Your task to perform on an android device: open the mobile data screen to see how much data has been used Image 0: 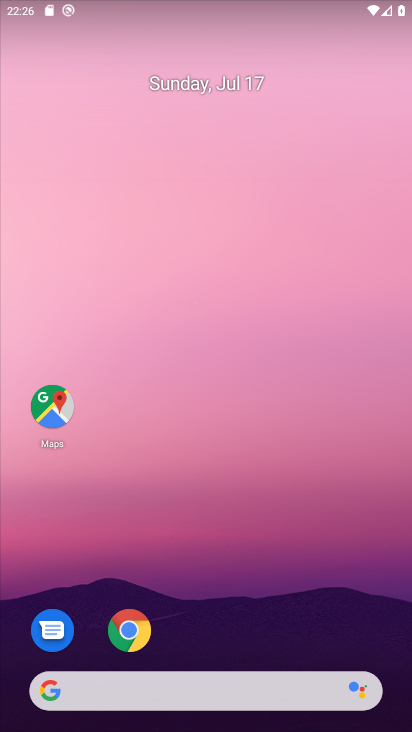
Step 0: drag from (209, 574) to (239, 5)
Your task to perform on an android device: open the mobile data screen to see how much data has been used Image 1: 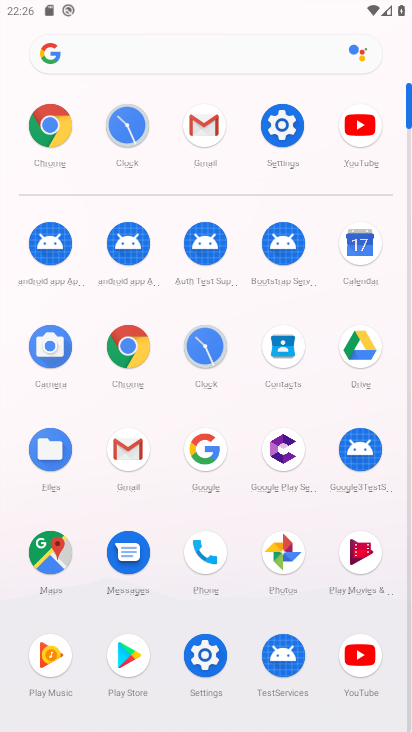
Step 1: click (210, 674)
Your task to perform on an android device: open the mobile data screen to see how much data has been used Image 2: 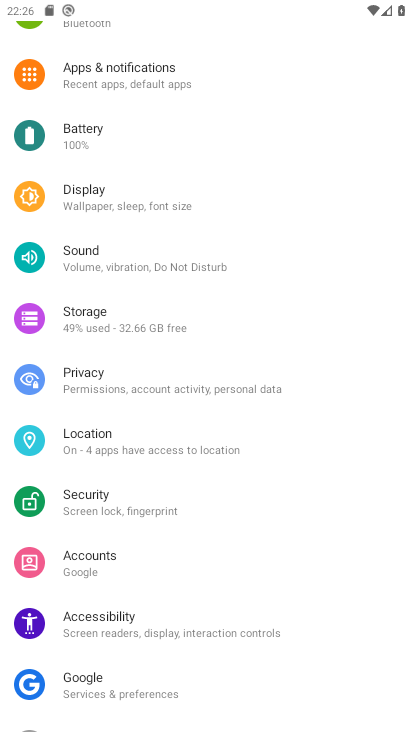
Step 2: drag from (153, 169) to (169, 432)
Your task to perform on an android device: open the mobile data screen to see how much data has been used Image 3: 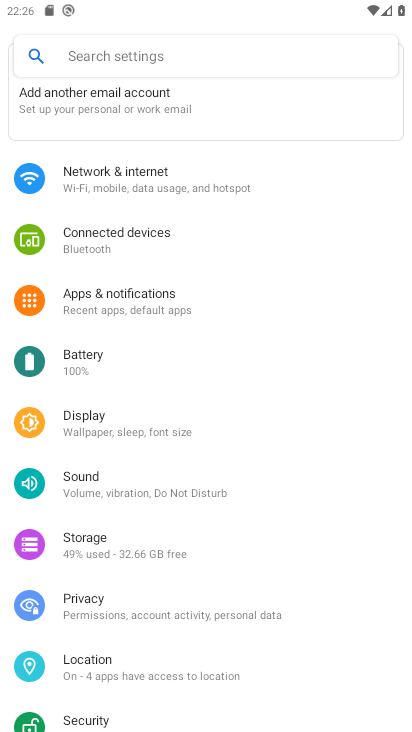
Step 3: click (115, 188)
Your task to perform on an android device: open the mobile data screen to see how much data has been used Image 4: 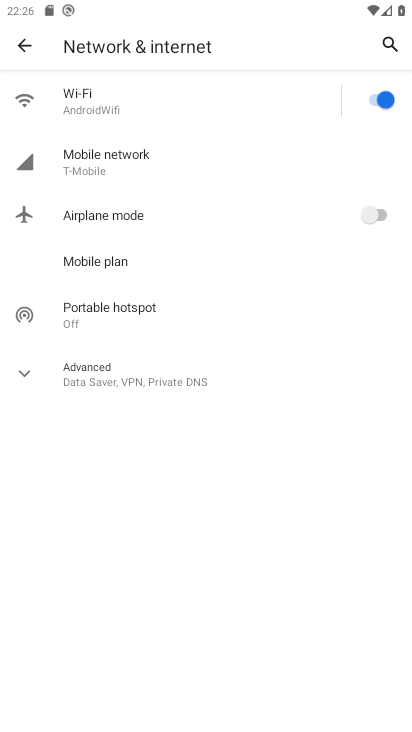
Step 4: click (117, 155)
Your task to perform on an android device: open the mobile data screen to see how much data has been used Image 5: 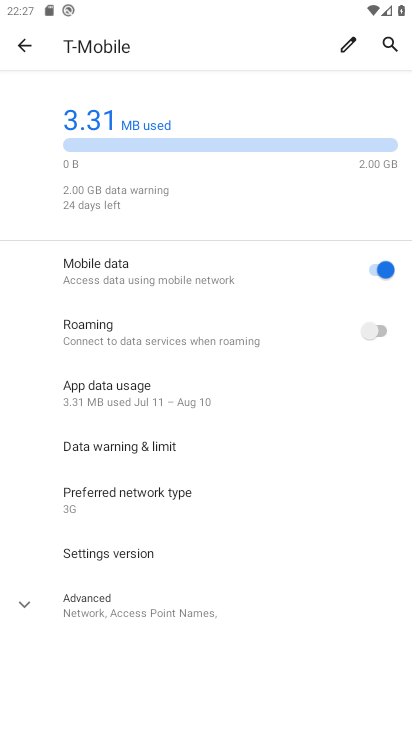
Step 5: click (156, 408)
Your task to perform on an android device: open the mobile data screen to see how much data has been used Image 6: 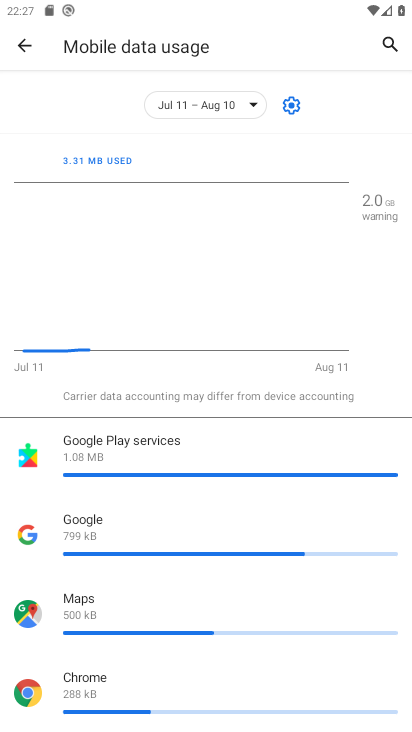
Step 6: task complete